Your task to perform on an android device: open chrome and create a bookmark for the current page Image 0: 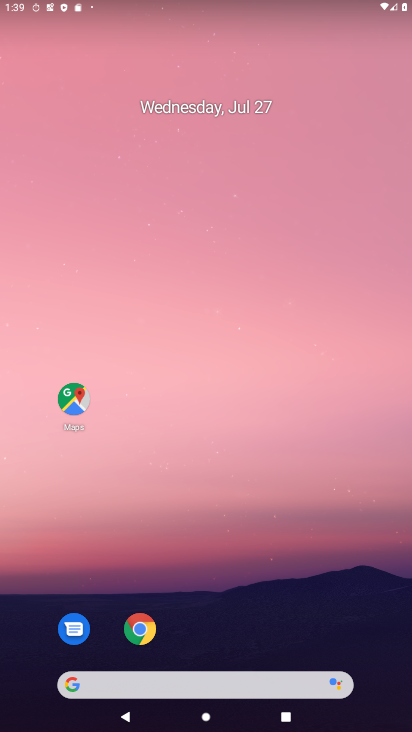
Step 0: drag from (223, 369) to (139, 38)
Your task to perform on an android device: open chrome and create a bookmark for the current page Image 1: 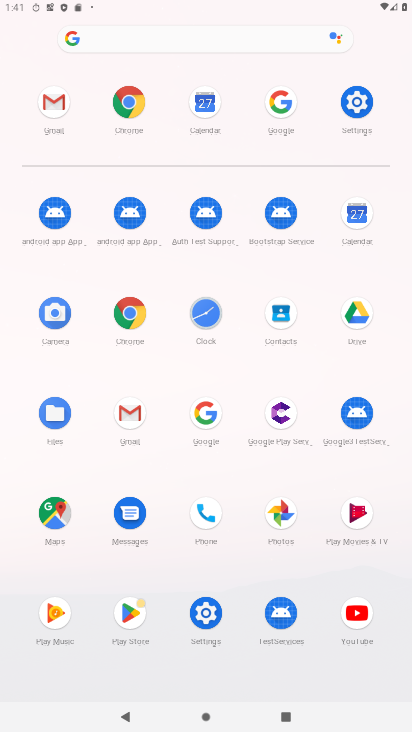
Step 1: click (124, 289)
Your task to perform on an android device: open chrome and create a bookmark for the current page Image 2: 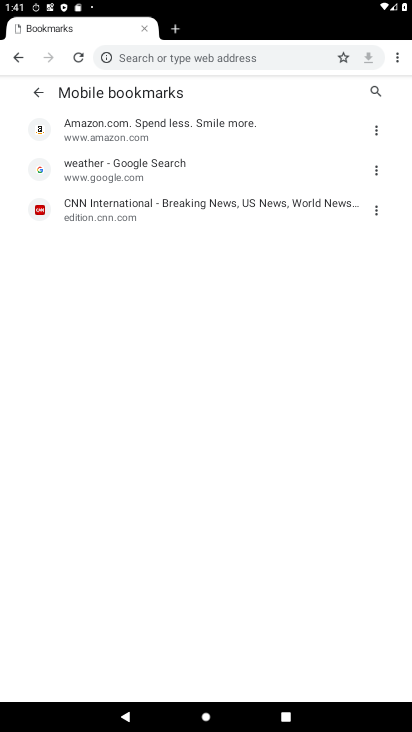
Step 2: click (339, 56)
Your task to perform on an android device: open chrome and create a bookmark for the current page Image 3: 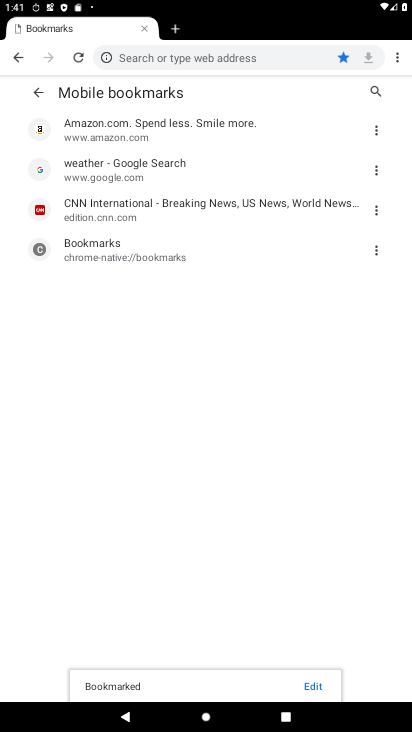
Step 3: task complete